Your task to perform on an android device: Open notification settings Image 0: 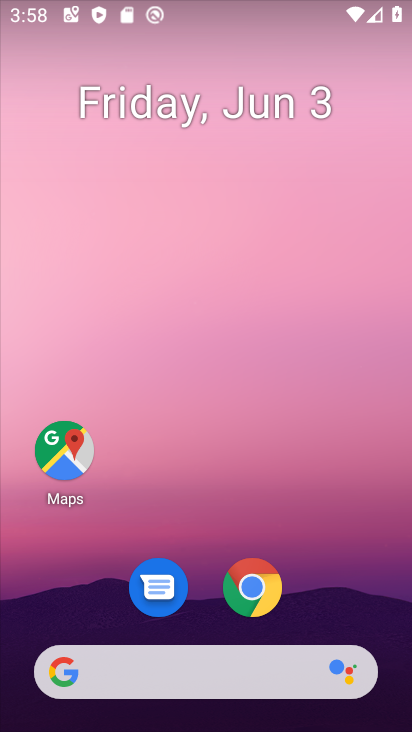
Step 0: drag from (361, 505) to (370, 214)
Your task to perform on an android device: Open notification settings Image 1: 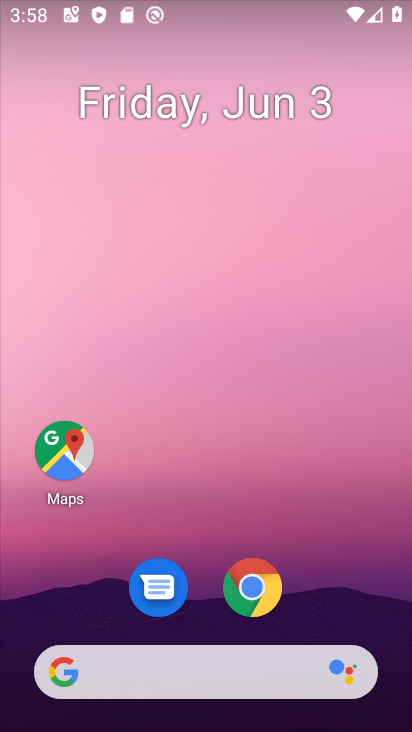
Step 1: drag from (295, 581) to (390, 188)
Your task to perform on an android device: Open notification settings Image 2: 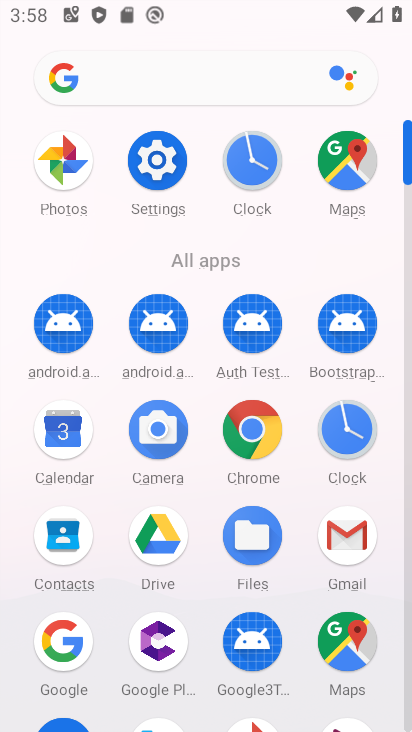
Step 2: click (172, 182)
Your task to perform on an android device: Open notification settings Image 3: 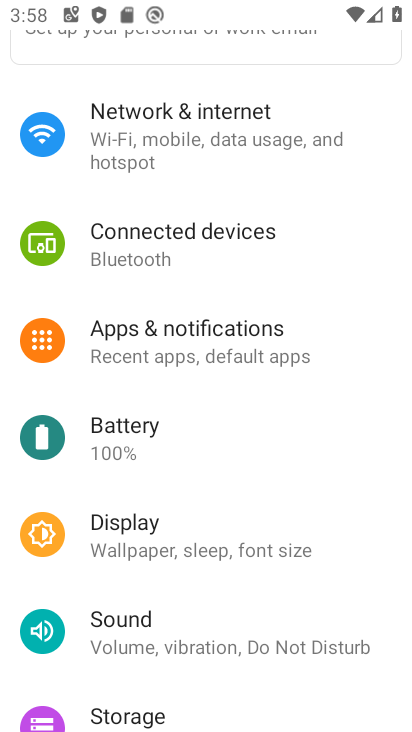
Step 3: click (213, 338)
Your task to perform on an android device: Open notification settings Image 4: 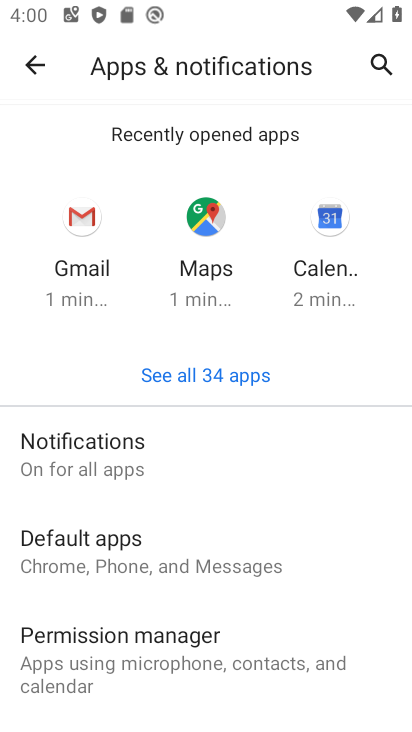
Step 4: click (216, 426)
Your task to perform on an android device: Open notification settings Image 5: 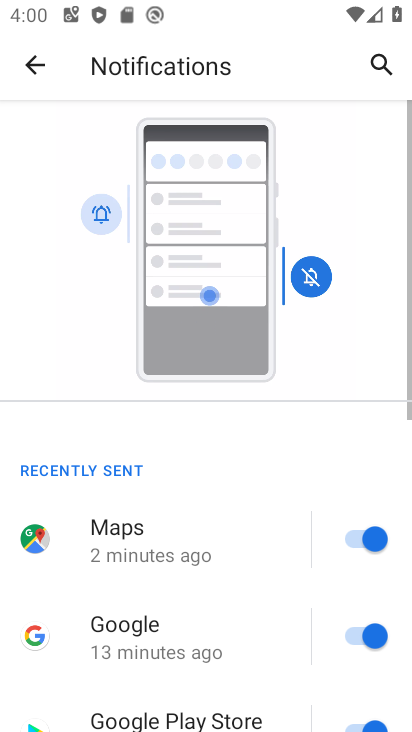
Step 5: task complete